Your task to perform on an android device: create a new album in the google photos Image 0: 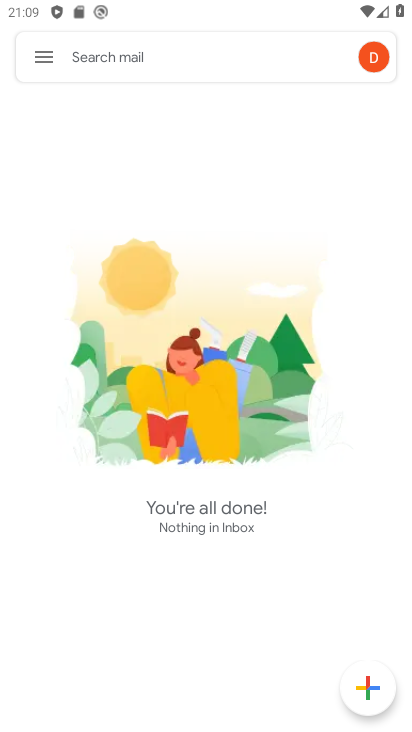
Step 0: press home button
Your task to perform on an android device: create a new album in the google photos Image 1: 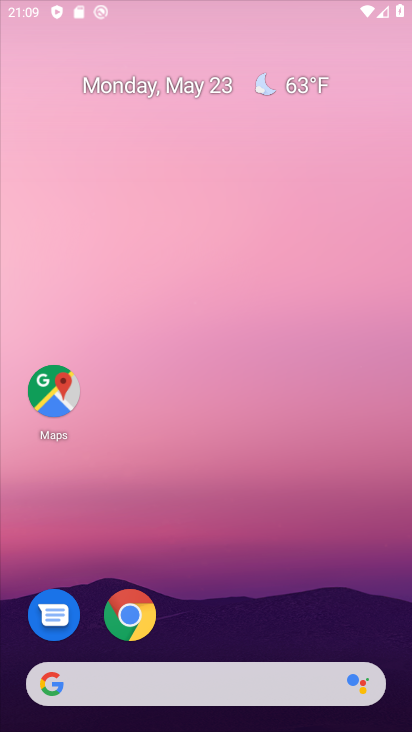
Step 1: drag from (221, 651) to (277, 66)
Your task to perform on an android device: create a new album in the google photos Image 2: 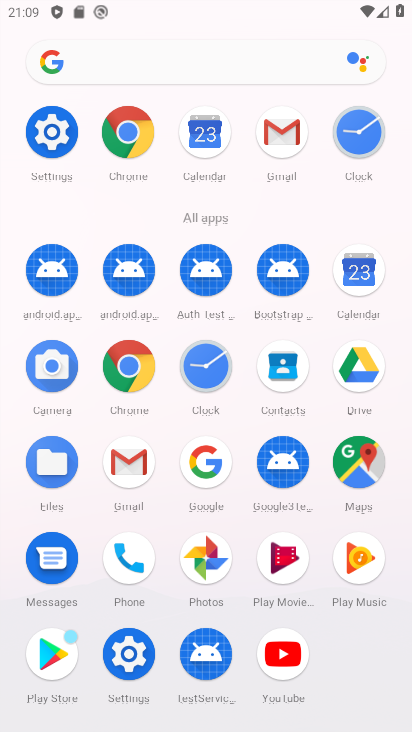
Step 2: click (203, 547)
Your task to perform on an android device: create a new album in the google photos Image 3: 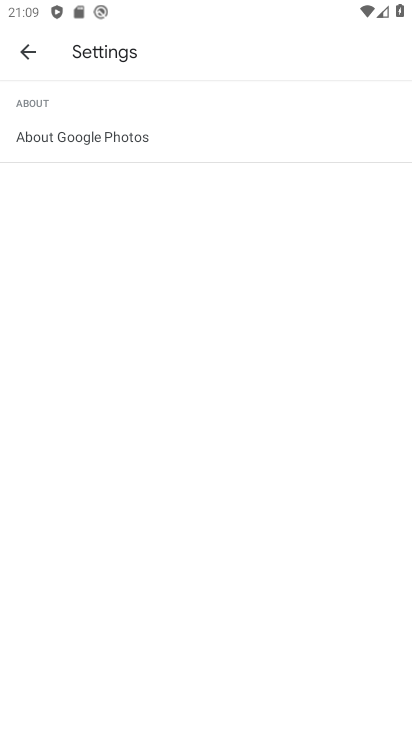
Step 3: press back button
Your task to perform on an android device: create a new album in the google photos Image 4: 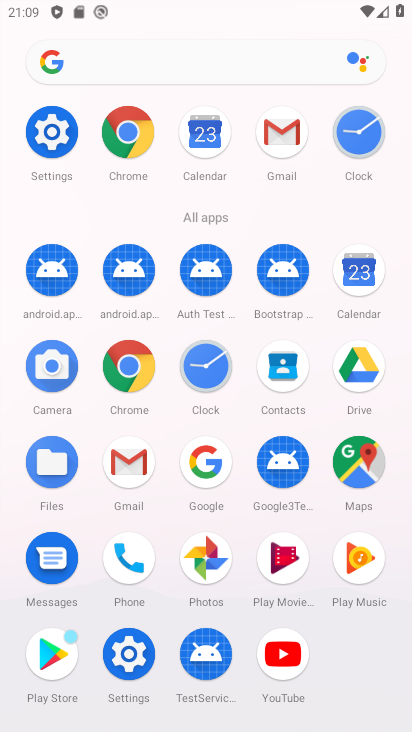
Step 4: click (206, 558)
Your task to perform on an android device: create a new album in the google photos Image 5: 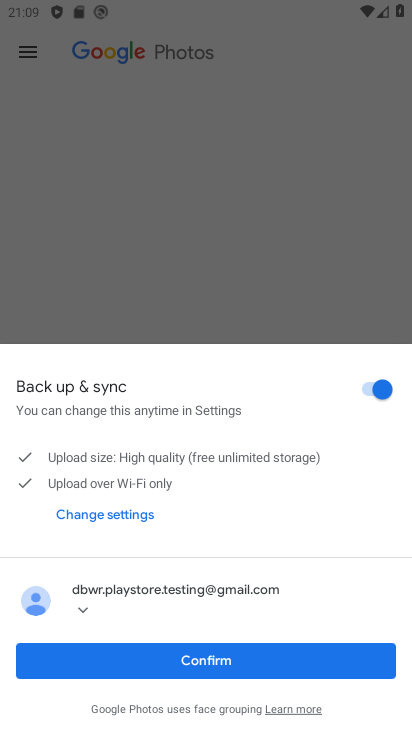
Step 5: click (183, 657)
Your task to perform on an android device: create a new album in the google photos Image 6: 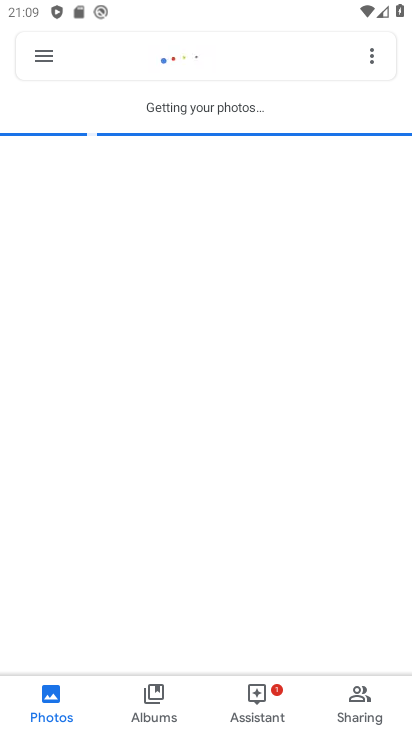
Step 6: click (158, 712)
Your task to perform on an android device: create a new album in the google photos Image 7: 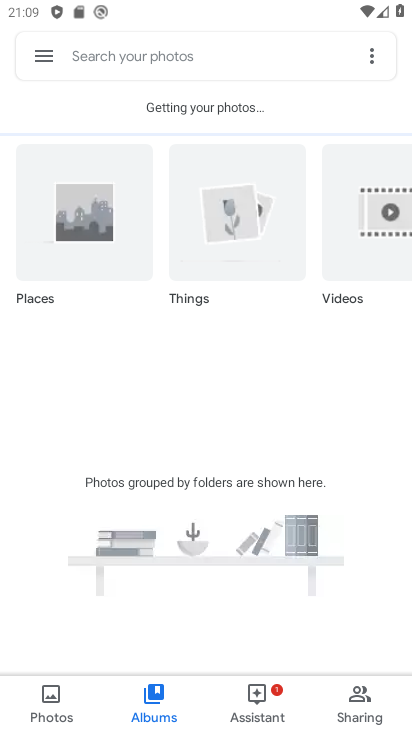
Step 7: task complete